Your task to perform on an android device: change notifications settings Image 0: 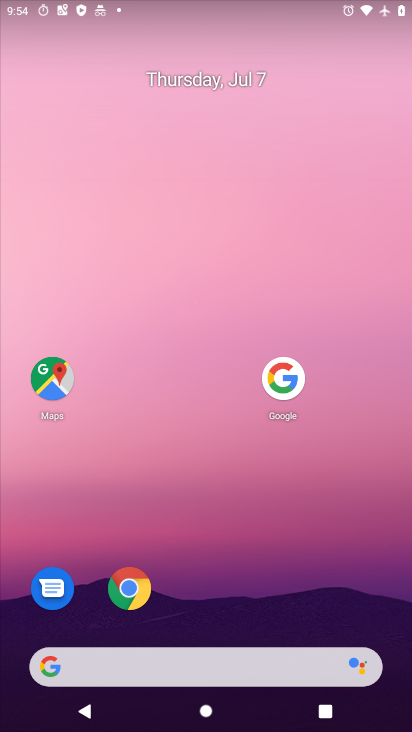
Step 0: drag from (221, 674) to (308, 235)
Your task to perform on an android device: change notifications settings Image 1: 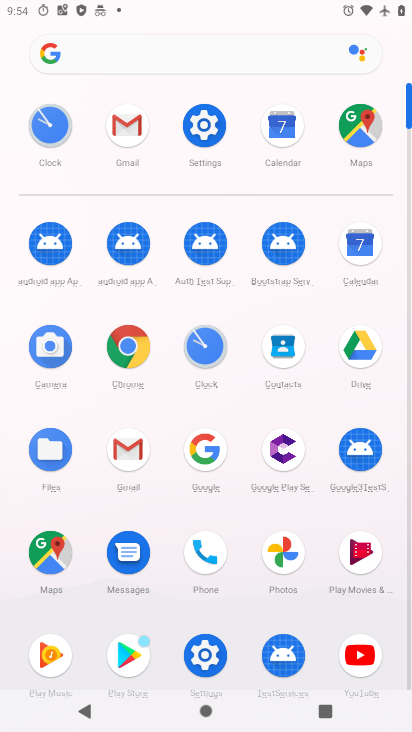
Step 1: click (196, 121)
Your task to perform on an android device: change notifications settings Image 2: 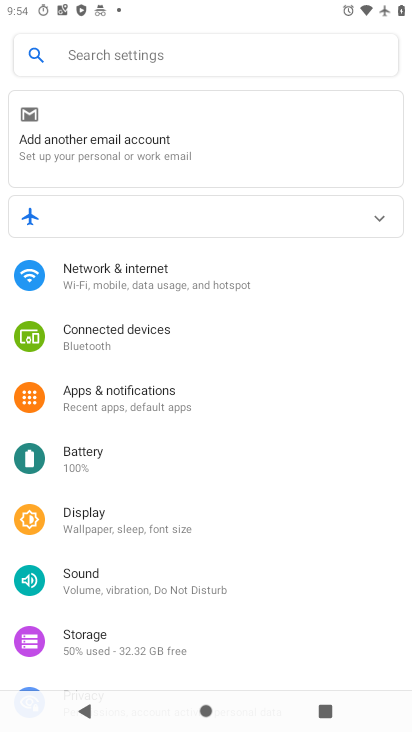
Step 2: click (154, 393)
Your task to perform on an android device: change notifications settings Image 3: 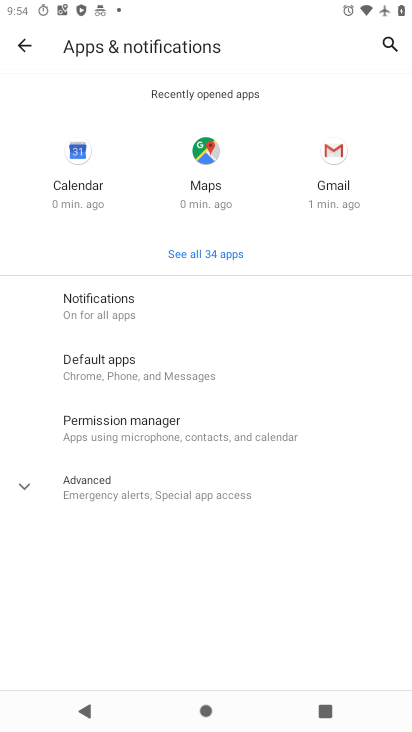
Step 3: click (119, 310)
Your task to perform on an android device: change notifications settings Image 4: 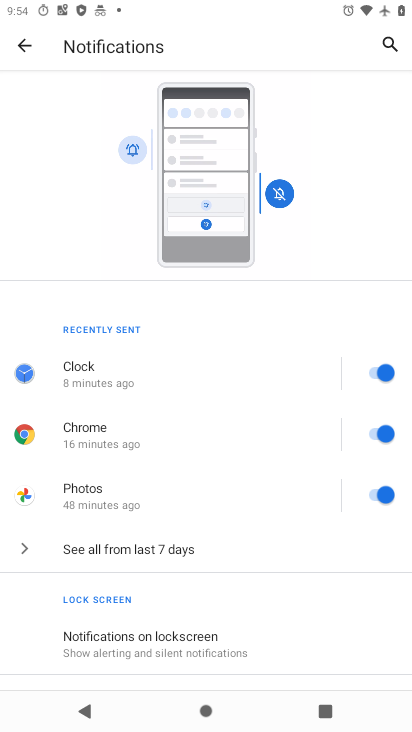
Step 4: drag from (170, 589) to (237, 351)
Your task to perform on an android device: change notifications settings Image 5: 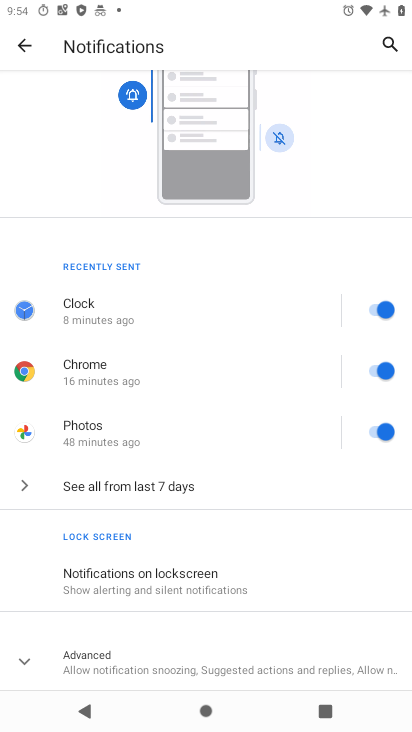
Step 5: click (371, 306)
Your task to perform on an android device: change notifications settings Image 6: 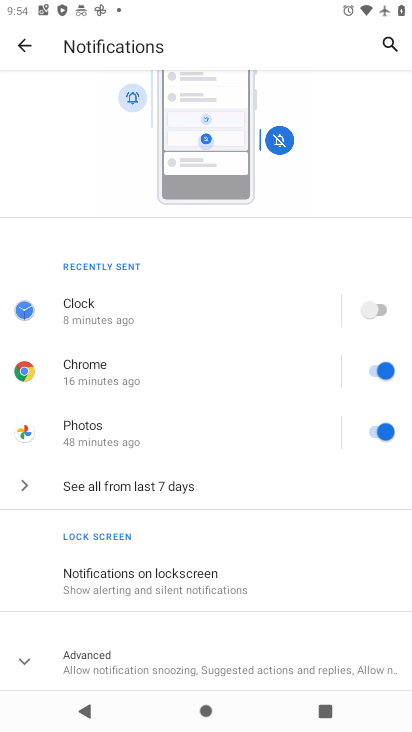
Step 6: task complete